Your task to perform on an android device: Open maps Image 0: 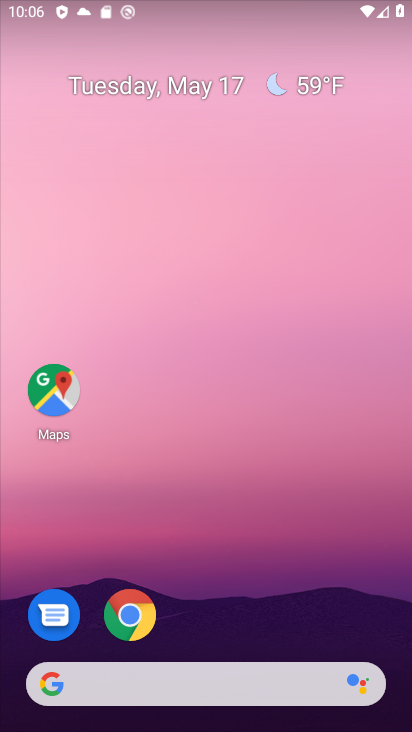
Step 0: drag from (221, 613) to (209, 52)
Your task to perform on an android device: Open maps Image 1: 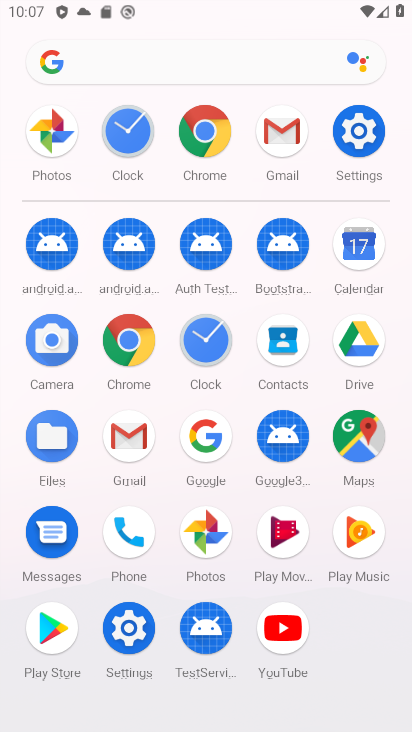
Step 1: click (350, 457)
Your task to perform on an android device: Open maps Image 2: 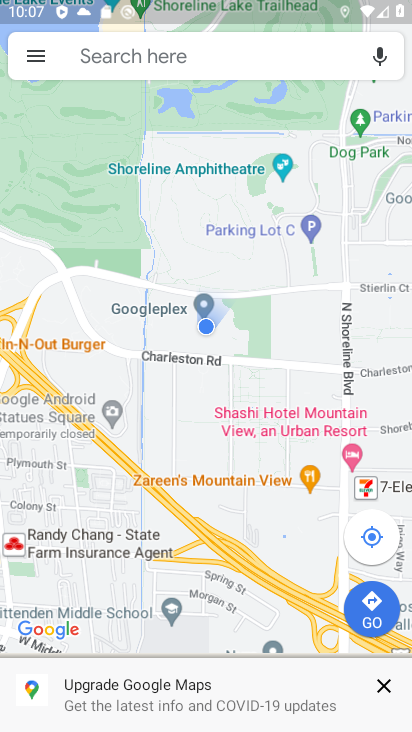
Step 2: task complete